Your task to perform on an android device: open app "Move to iOS" (install if not already installed) and enter user name: "Decca@icloud.com" and password: "reabbreviate" Image 0: 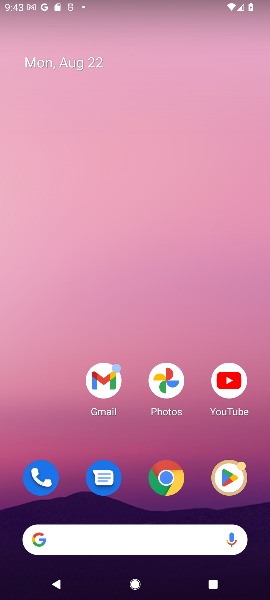
Step 0: click (223, 488)
Your task to perform on an android device: open app "Move to iOS" (install if not already installed) and enter user name: "Decca@icloud.com" and password: "reabbreviate" Image 1: 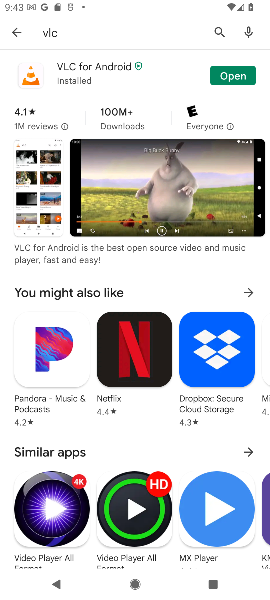
Step 1: click (212, 30)
Your task to perform on an android device: open app "Move to iOS" (install if not already installed) and enter user name: "Decca@icloud.com" and password: "reabbreviate" Image 2: 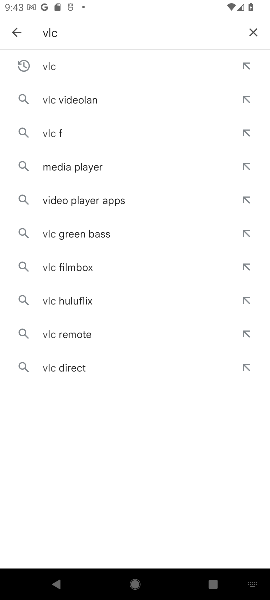
Step 2: click (247, 30)
Your task to perform on an android device: open app "Move to iOS" (install if not already installed) and enter user name: "Decca@icloud.com" and password: "reabbreviate" Image 3: 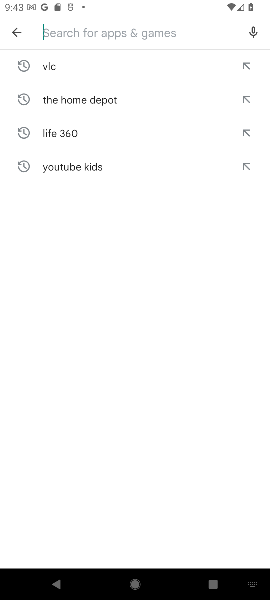
Step 3: type "move iso"
Your task to perform on an android device: open app "Move to iOS" (install if not already installed) and enter user name: "Decca@icloud.com" and password: "reabbreviate" Image 4: 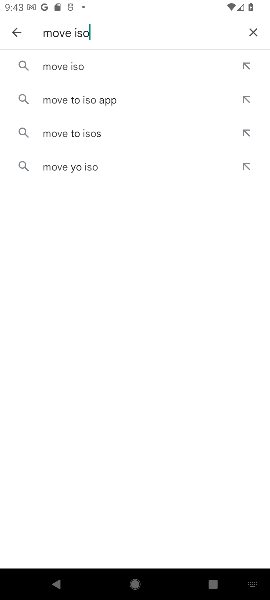
Step 4: click (66, 67)
Your task to perform on an android device: open app "Move to iOS" (install if not already installed) and enter user name: "Decca@icloud.com" and password: "reabbreviate" Image 5: 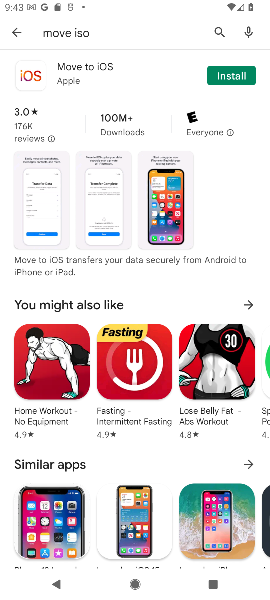
Step 5: click (209, 78)
Your task to perform on an android device: open app "Move to iOS" (install if not already installed) and enter user name: "Decca@icloud.com" and password: "reabbreviate" Image 6: 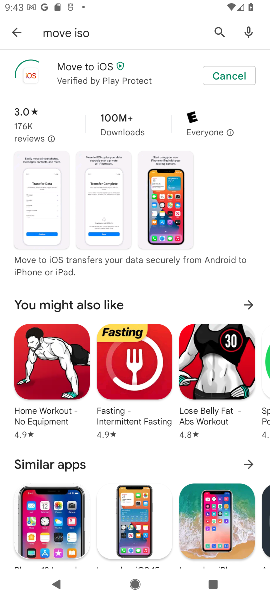
Step 6: task complete